Your task to perform on an android device: Go to CNN.com Image 0: 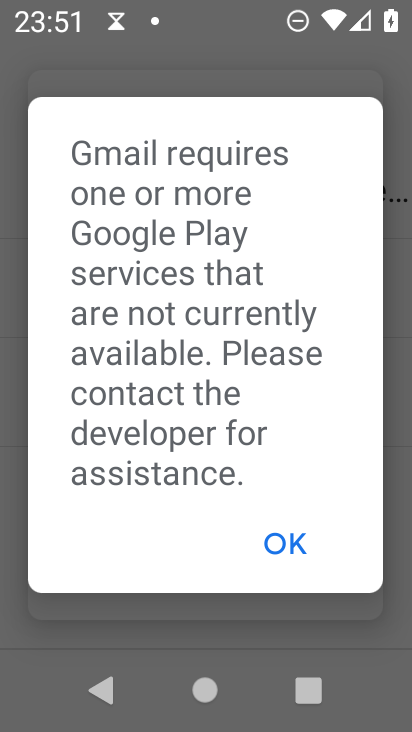
Step 0: press home button
Your task to perform on an android device: Go to CNN.com Image 1: 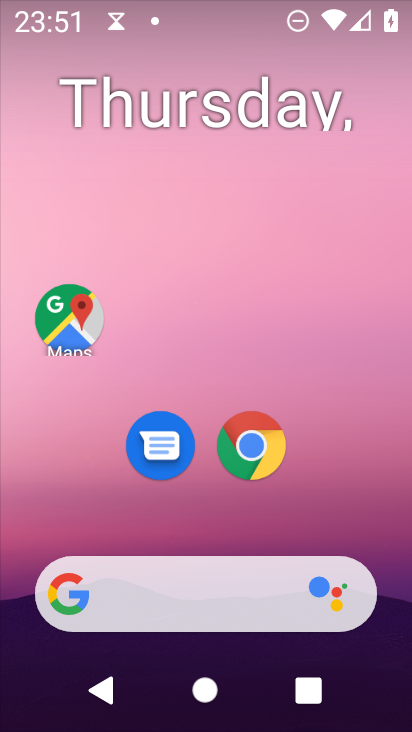
Step 1: click (258, 449)
Your task to perform on an android device: Go to CNN.com Image 2: 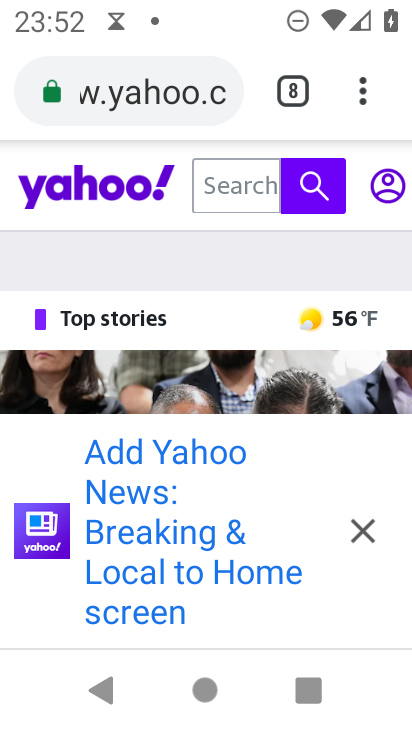
Step 2: click (362, 100)
Your task to perform on an android device: Go to CNN.com Image 3: 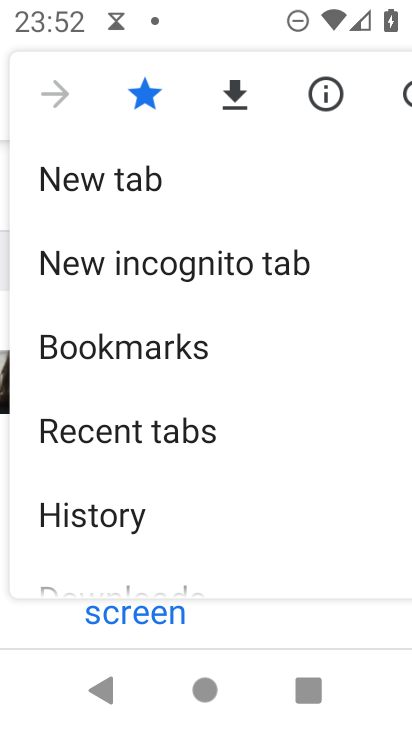
Step 3: click (132, 175)
Your task to perform on an android device: Go to CNN.com Image 4: 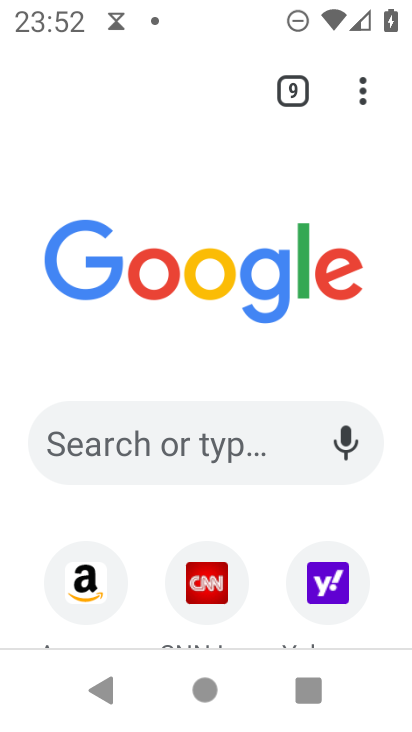
Step 4: click (204, 586)
Your task to perform on an android device: Go to CNN.com Image 5: 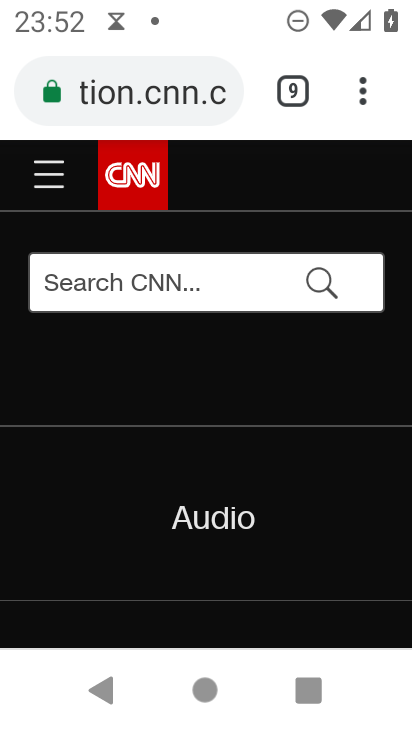
Step 5: task complete